Your task to perform on an android device: search for starred emails in the gmail app Image 0: 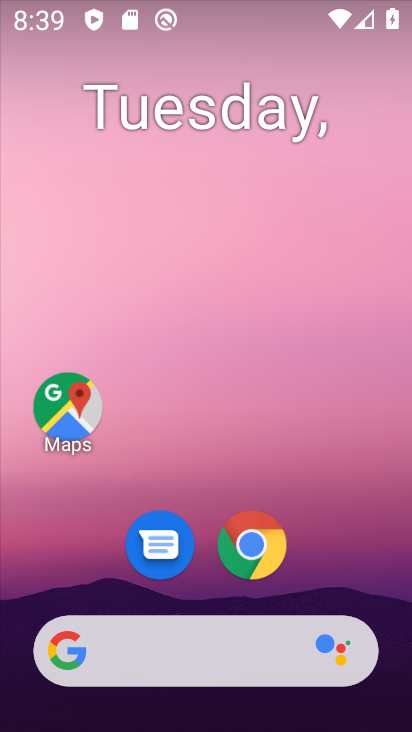
Step 0: drag from (289, 591) to (225, 67)
Your task to perform on an android device: search for starred emails in the gmail app Image 1: 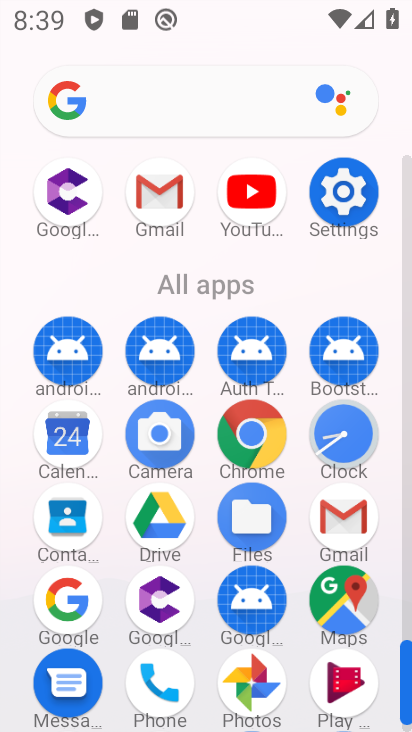
Step 1: click (342, 524)
Your task to perform on an android device: search for starred emails in the gmail app Image 2: 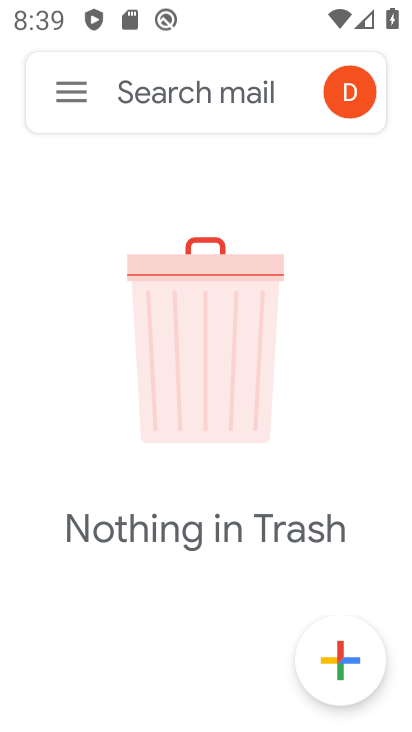
Step 2: click (76, 87)
Your task to perform on an android device: search for starred emails in the gmail app Image 3: 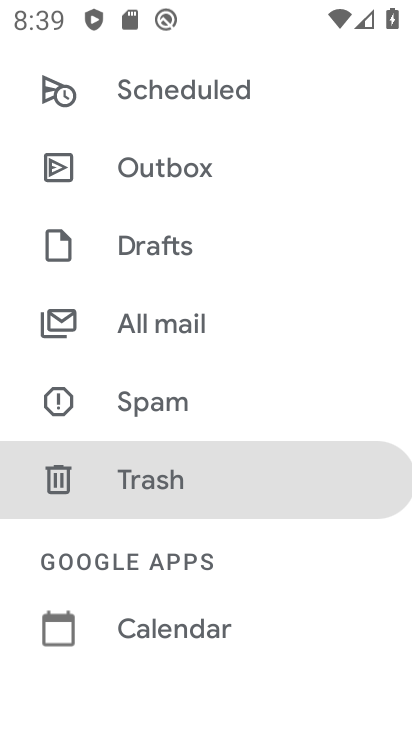
Step 3: drag from (222, 198) to (307, 523)
Your task to perform on an android device: search for starred emails in the gmail app Image 4: 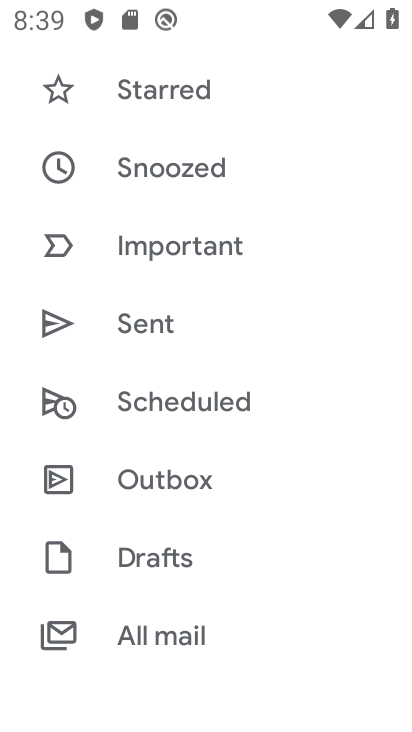
Step 4: click (202, 99)
Your task to perform on an android device: search for starred emails in the gmail app Image 5: 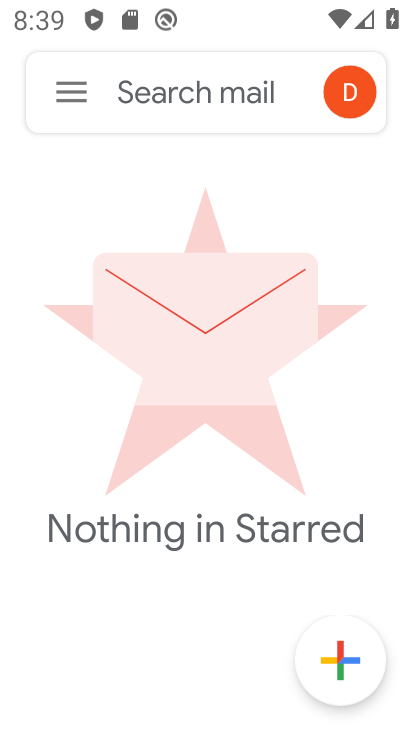
Step 5: task complete